Your task to perform on an android device: toggle translation in the chrome app Image 0: 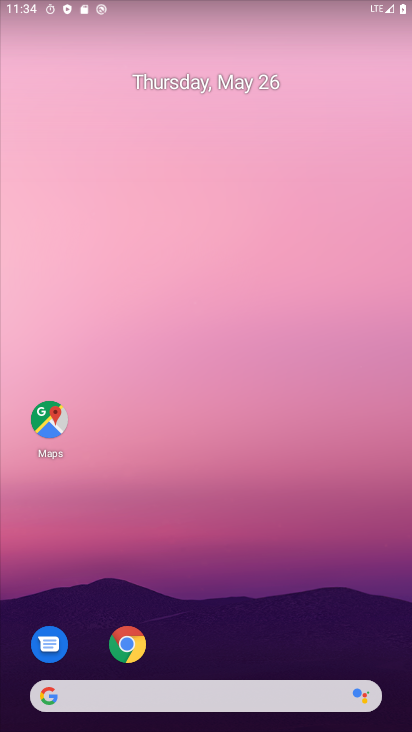
Step 0: click (136, 650)
Your task to perform on an android device: toggle translation in the chrome app Image 1: 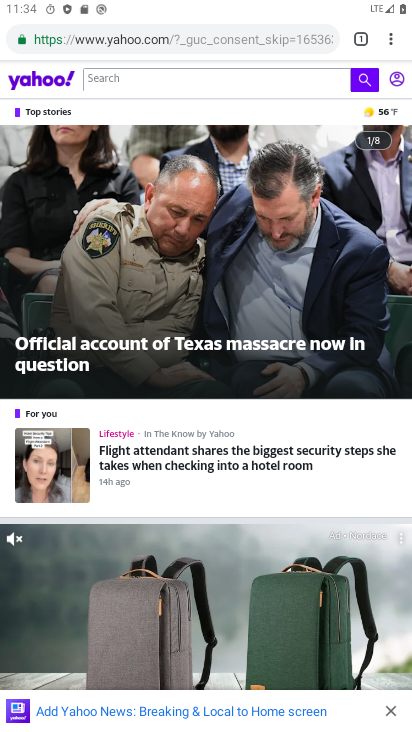
Step 1: click (391, 47)
Your task to perform on an android device: toggle translation in the chrome app Image 2: 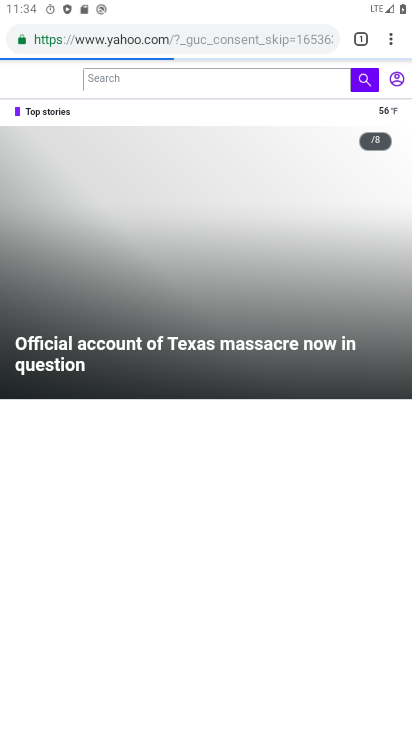
Step 2: click (391, 31)
Your task to perform on an android device: toggle translation in the chrome app Image 3: 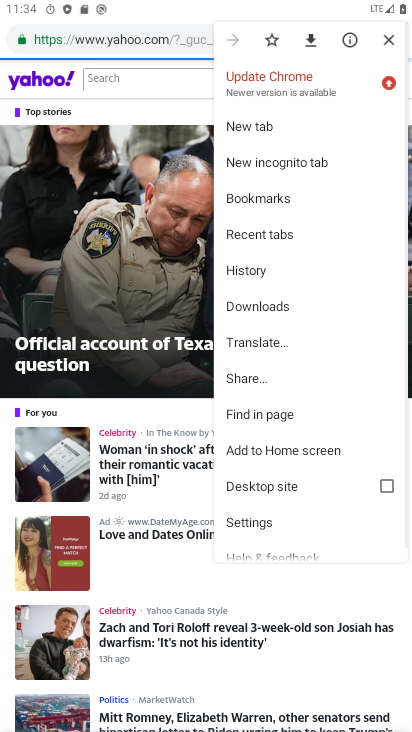
Step 3: click (261, 527)
Your task to perform on an android device: toggle translation in the chrome app Image 4: 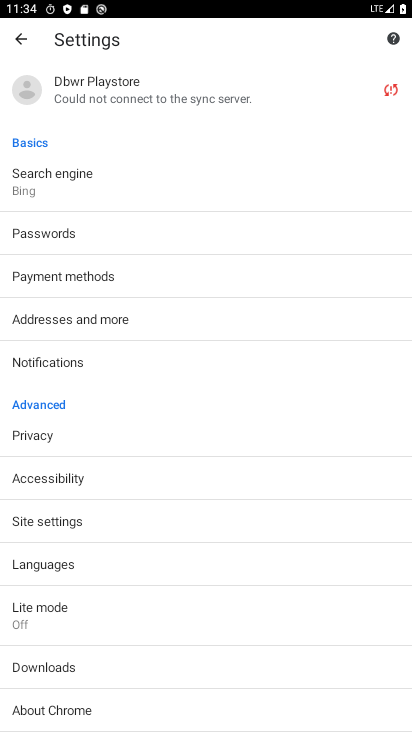
Step 4: click (58, 570)
Your task to perform on an android device: toggle translation in the chrome app Image 5: 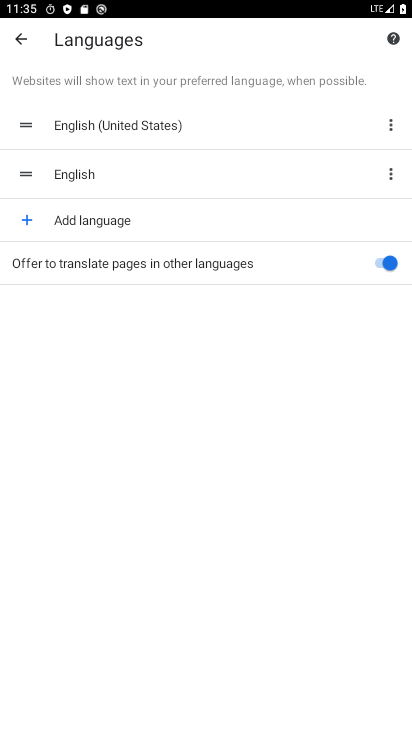
Step 5: click (390, 264)
Your task to perform on an android device: toggle translation in the chrome app Image 6: 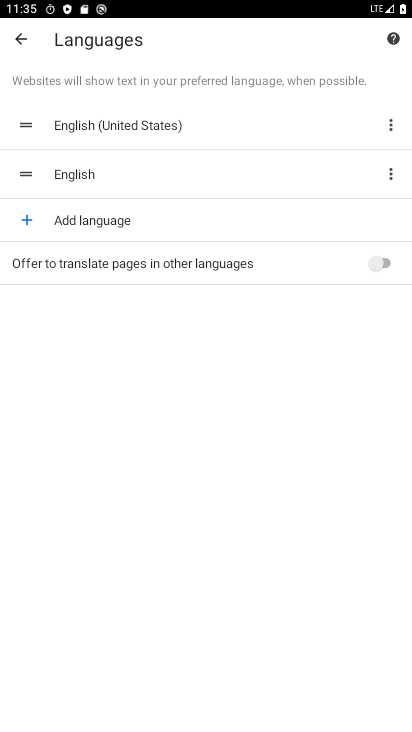
Step 6: task complete